Your task to perform on an android device: Go to Wikipedia Image 0: 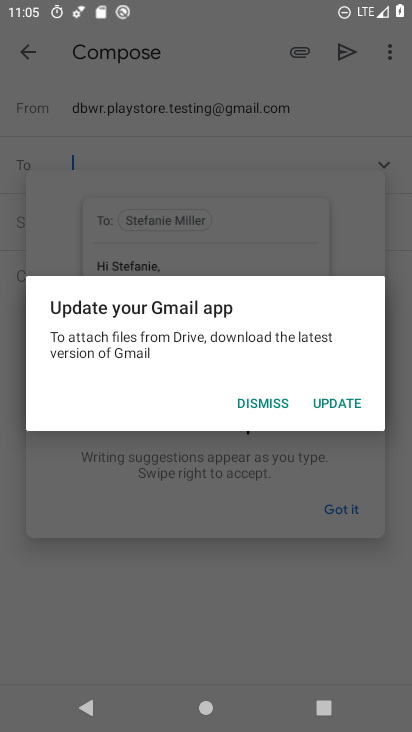
Step 0: click (261, 395)
Your task to perform on an android device: Go to Wikipedia Image 1: 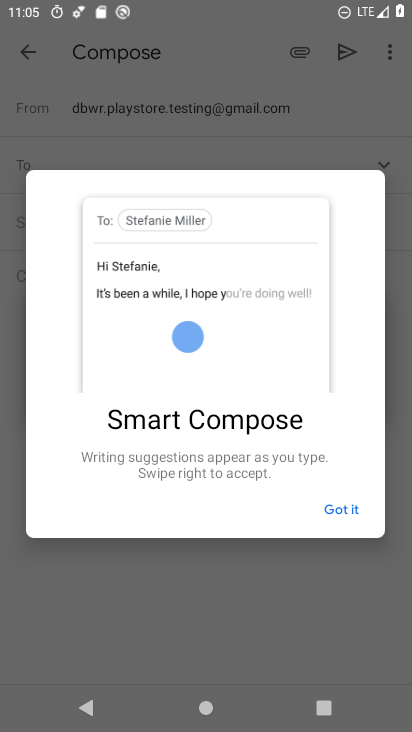
Step 1: click (341, 512)
Your task to perform on an android device: Go to Wikipedia Image 2: 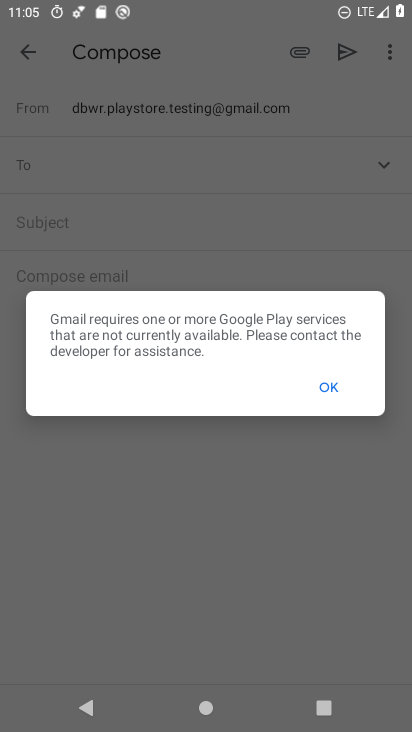
Step 2: press back button
Your task to perform on an android device: Go to Wikipedia Image 3: 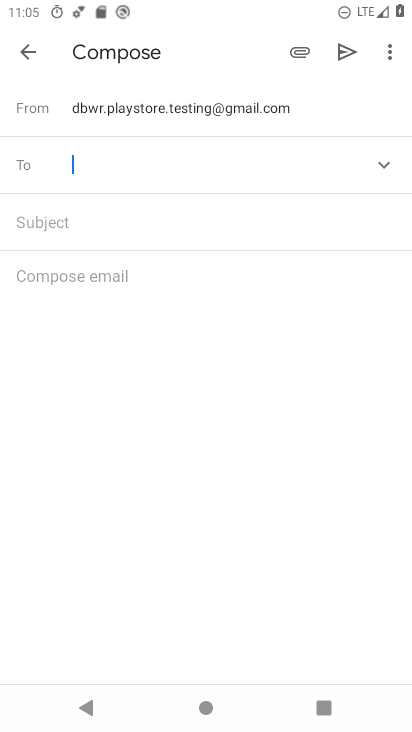
Step 3: click (19, 43)
Your task to perform on an android device: Go to Wikipedia Image 4: 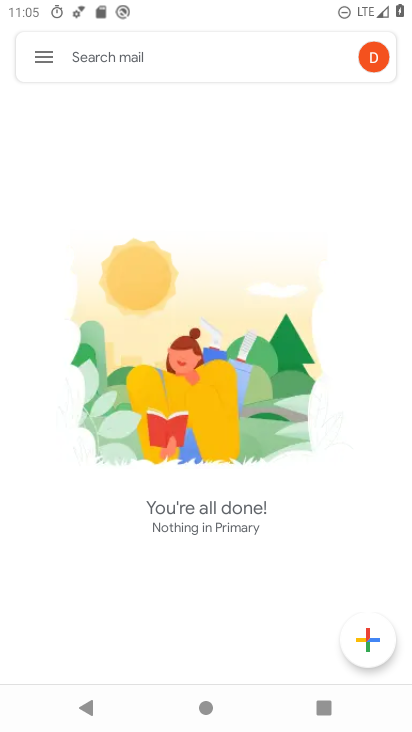
Step 4: press back button
Your task to perform on an android device: Go to Wikipedia Image 5: 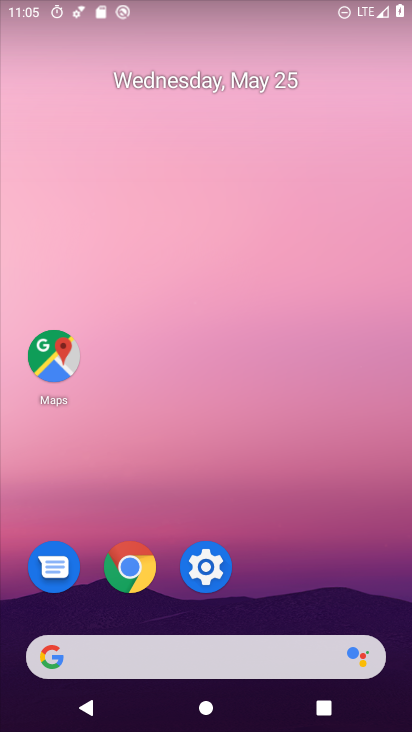
Step 5: drag from (265, 694) to (179, 19)
Your task to perform on an android device: Go to Wikipedia Image 6: 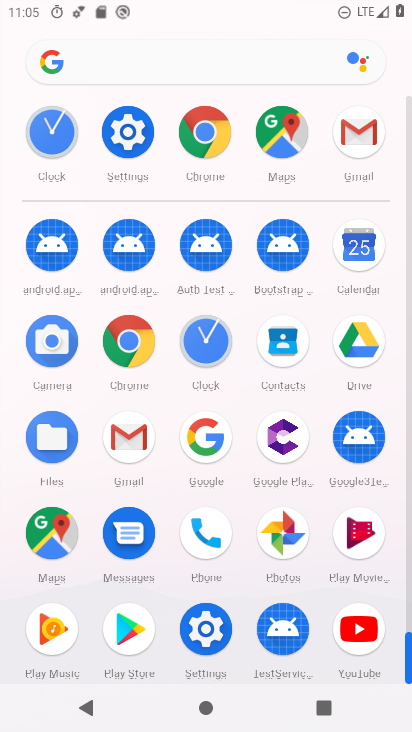
Step 6: click (201, 130)
Your task to perform on an android device: Go to Wikipedia Image 7: 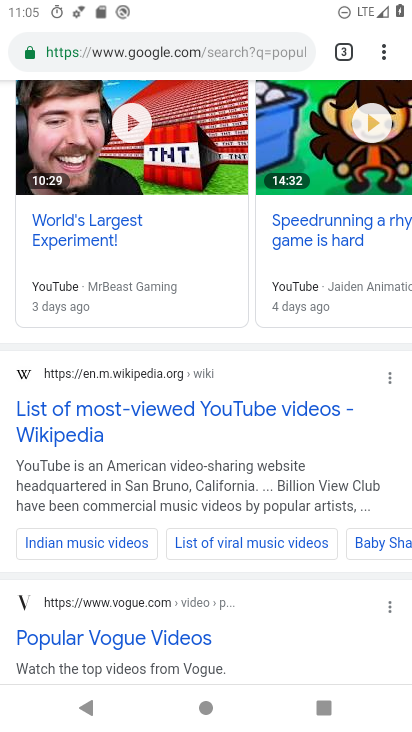
Step 7: click (382, 55)
Your task to perform on an android device: Go to Wikipedia Image 8: 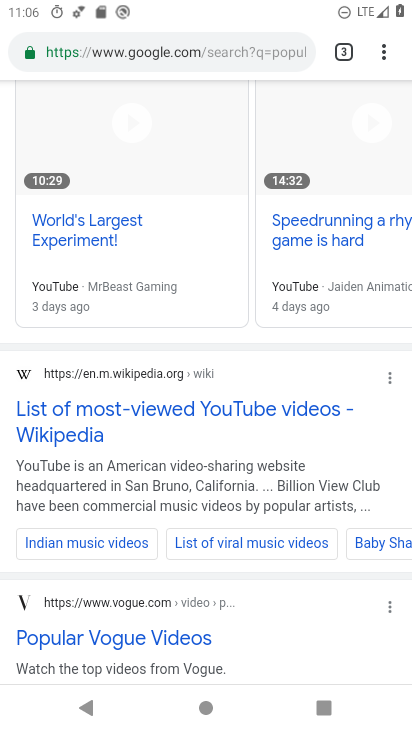
Step 8: drag from (377, 51) to (195, 100)
Your task to perform on an android device: Go to Wikipedia Image 9: 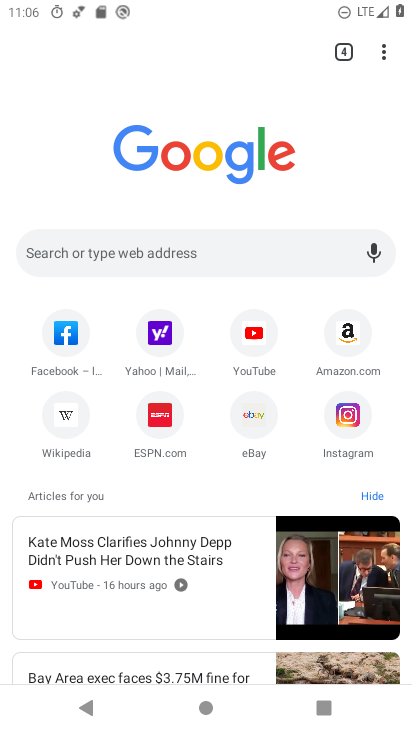
Step 9: click (48, 403)
Your task to perform on an android device: Go to Wikipedia Image 10: 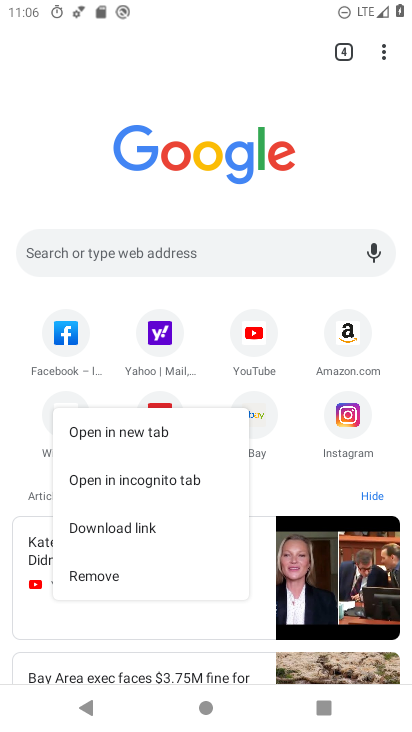
Step 10: click (84, 423)
Your task to perform on an android device: Go to Wikipedia Image 11: 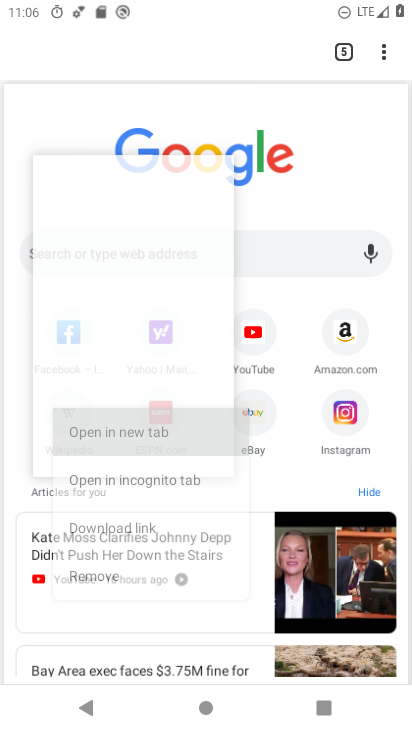
Step 11: click (69, 423)
Your task to perform on an android device: Go to Wikipedia Image 12: 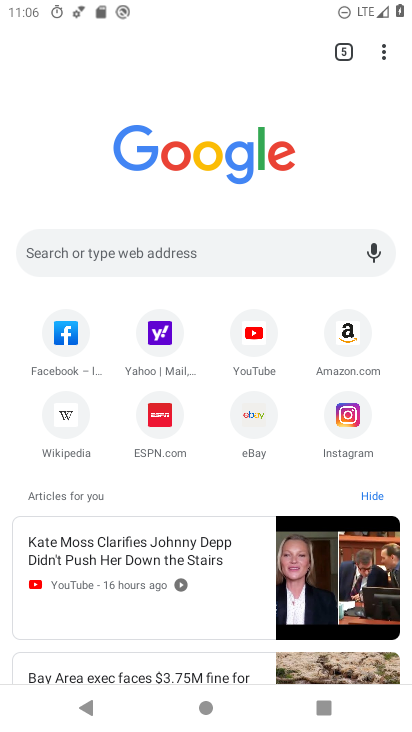
Step 12: task complete